Your task to perform on an android device: move a message to another label in the gmail app Image 0: 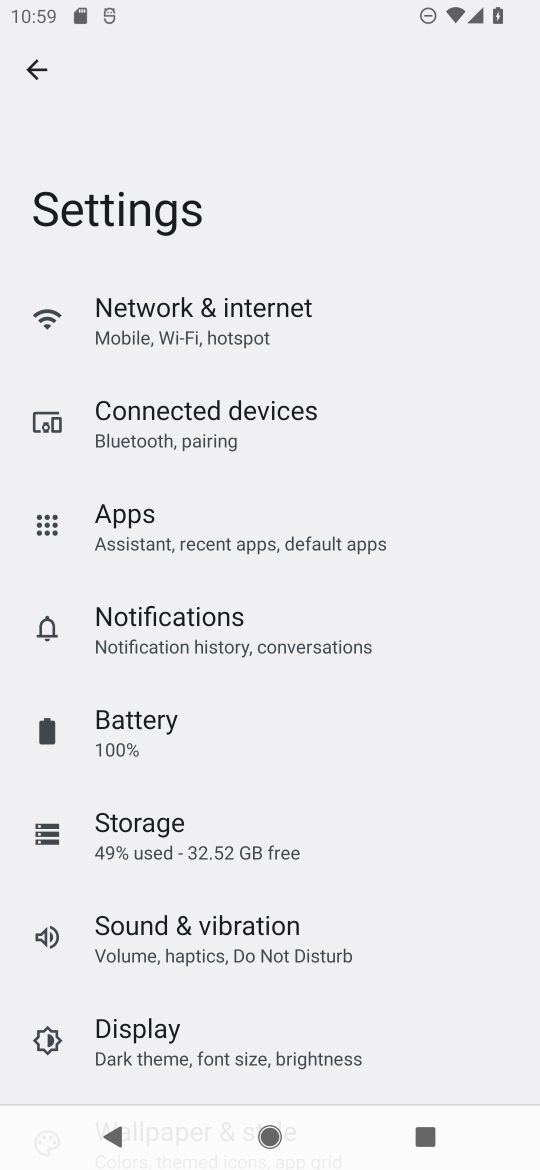
Step 0: press home button
Your task to perform on an android device: move a message to another label in the gmail app Image 1: 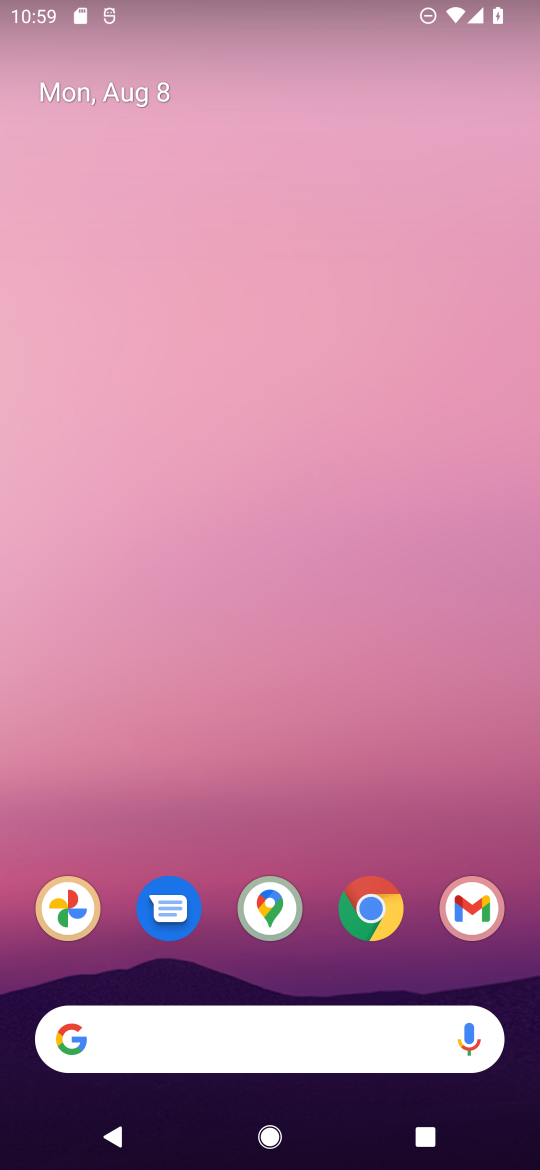
Step 1: click (481, 901)
Your task to perform on an android device: move a message to another label in the gmail app Image 2: 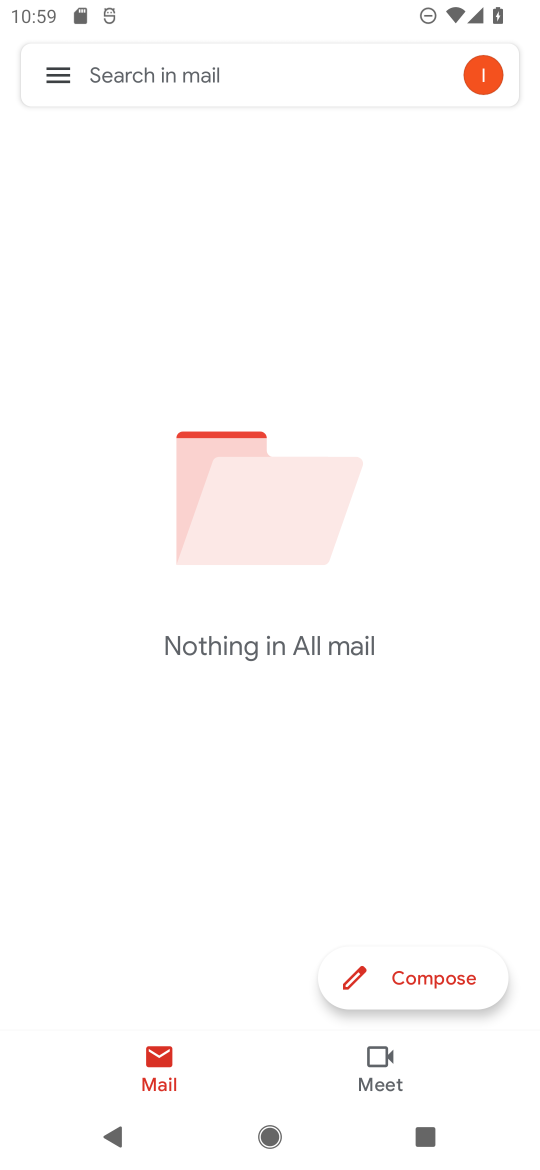
Step 2: task complete